Your task to perform on an android device: turn on showing notifications on the lock screen Image 0: 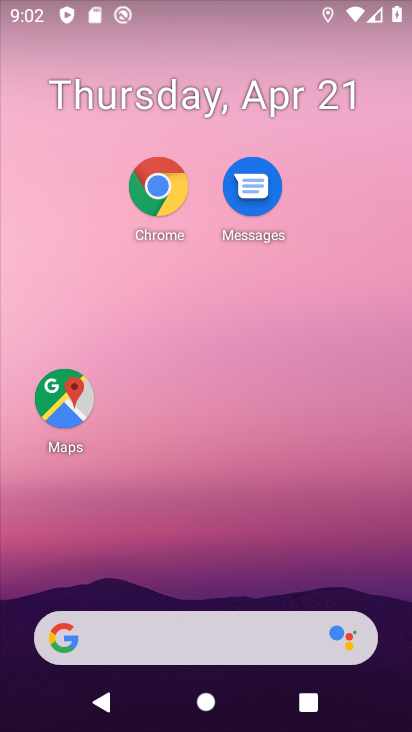
Step 0: drag from (200, 551) to (235, 123)
Your task to perform on an android device: turn on showing notifications on the lock screen Image 1: 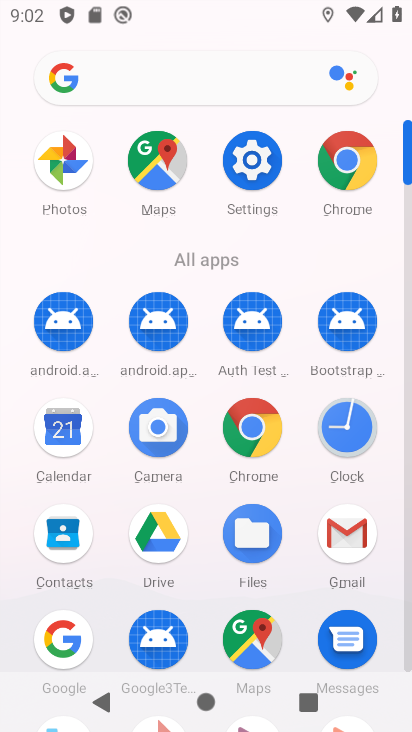
Step 1: click (244, 162)
Your task to perform on an android device: turn on showing notifications on the lock screen Image 2: 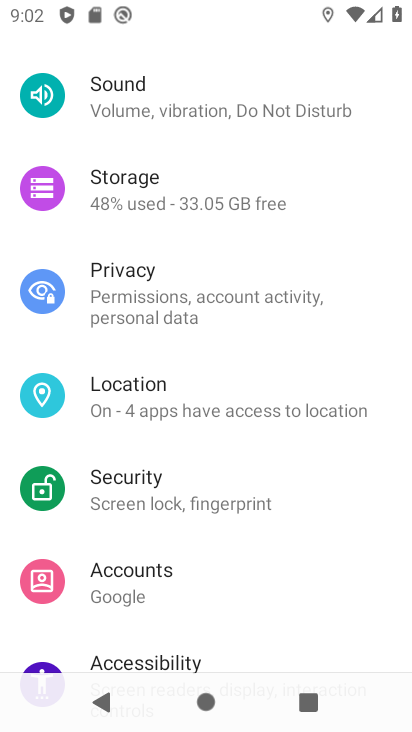
Step 2: drag from (233, 193) to (203, 617)
Your task to perform on an android device: turn on showing notifications on the lock screen Image 3: 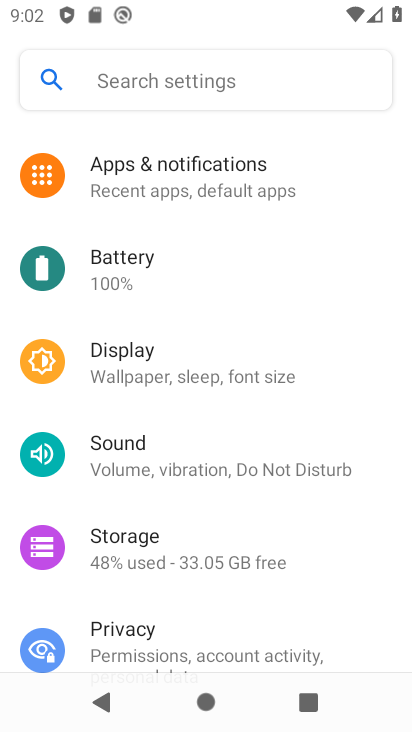
Step 3: click (239, 191)
Your task to perform on an android device: turn on showing notifications on the lock screen Image 4: 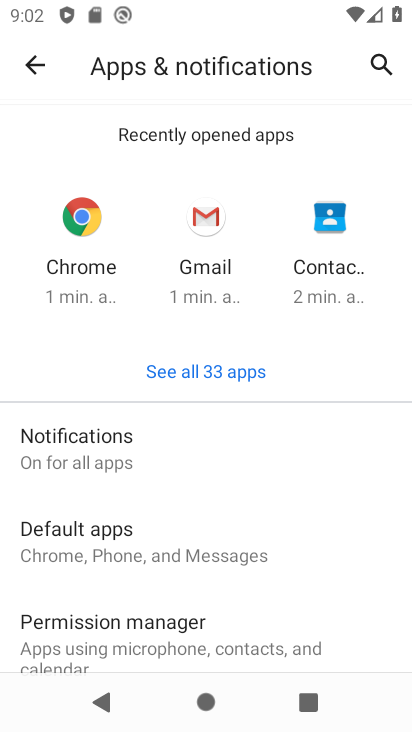
Step 4: click (165, 451)
Your task to perform on an android device: turn on showing notifications on the lock screen Image 5: 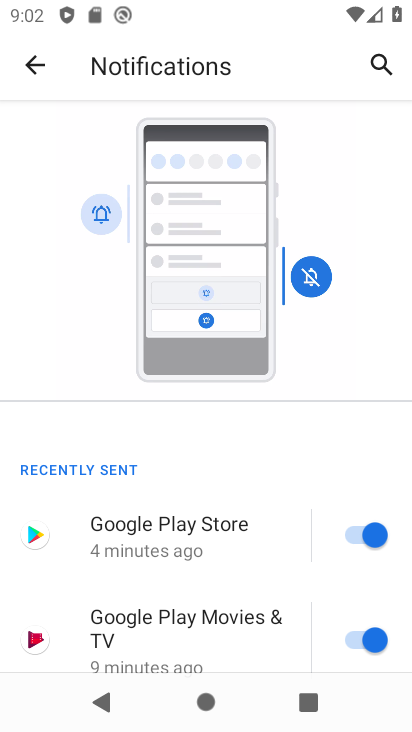
Step 5: drag from (212, 573) to (257, 209)
Your task to perform on an android device: turn on showing notifications on the lock screen Image 6: 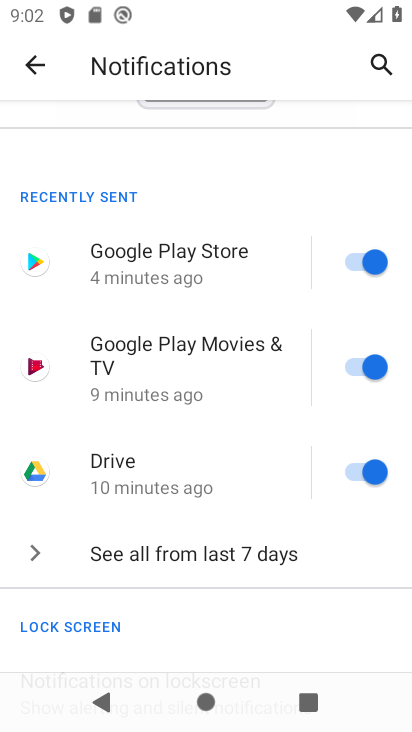
Step 6: drag from (153, 615) to (215, 211)
Your task to perform on an android device: turn on showing notifications on the lock screen Image 7: 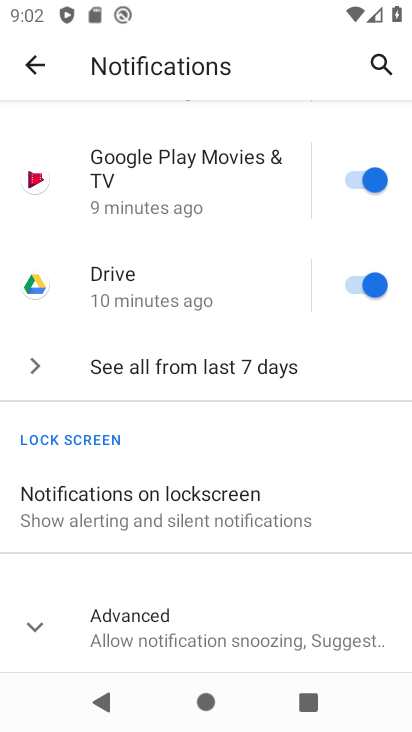
Step 7: click (205, 500)
Your task to perform on an android device: turn on showing notifications on the lock screen Image 8: 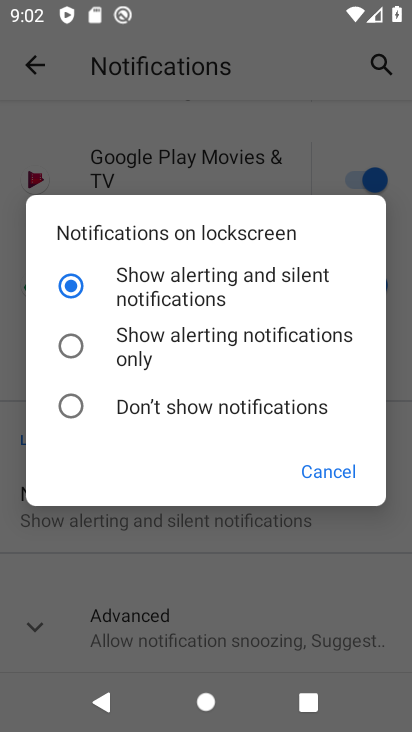
Step 8: click (69, 406)
Your task to perform on an android device: turn on showing notifications on the lock screen Image 9: 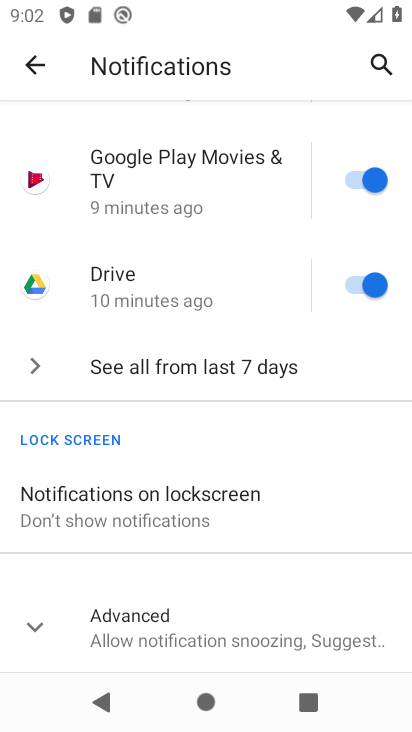
Step 9: task complete